Your task to perform on an android device: What's the weather today? Image 0: 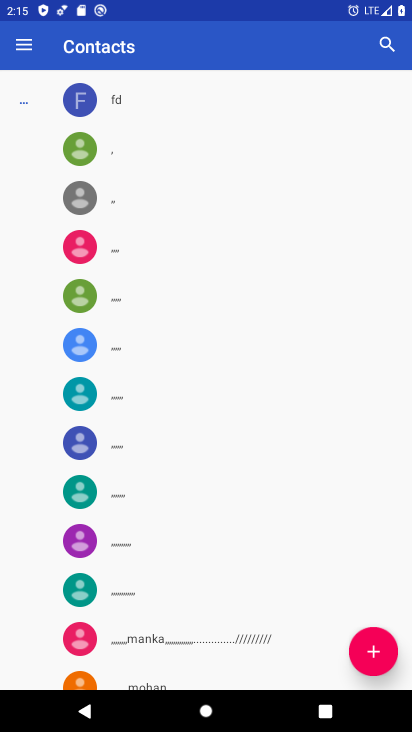
Step 0: press home button
Your task to perform on an android device: What's the weather today? Image 1: 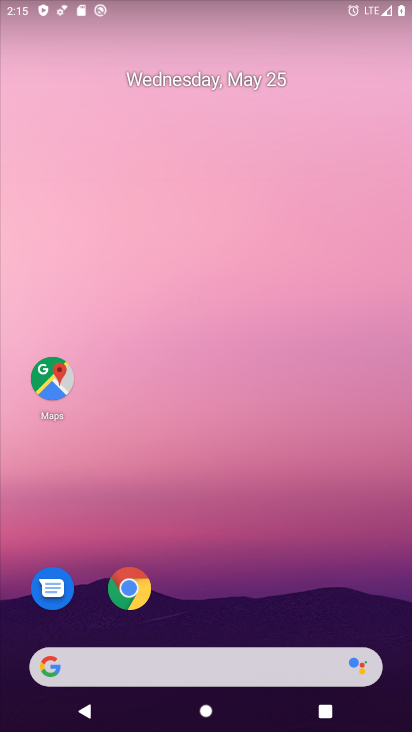
Step 1: drag from (262, 474) to (262, 29)
Your task to perform on an android device: What's the weather today? Image 2: 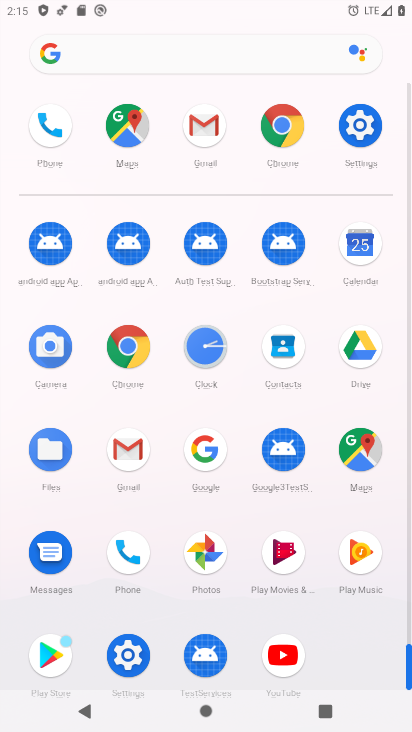
Step 2: click (283, 125)
Your task to perform on an android device: What's the weather today? Image 3: 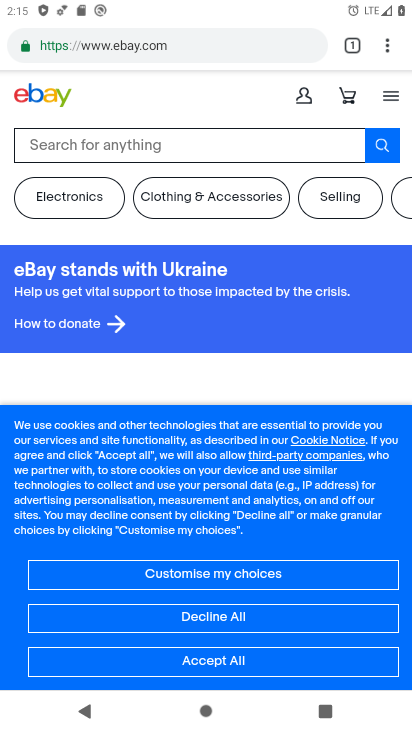
Step 3: click (153, 43)
Your task to perform on an android device: What's the weather today? Image 4: 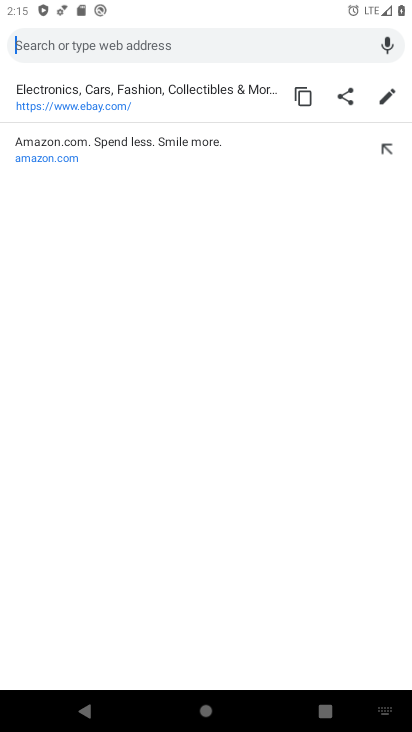
Step 4: type "What's the weather today?"
Your task to perform on an android device: What's the weather today? Image 5: 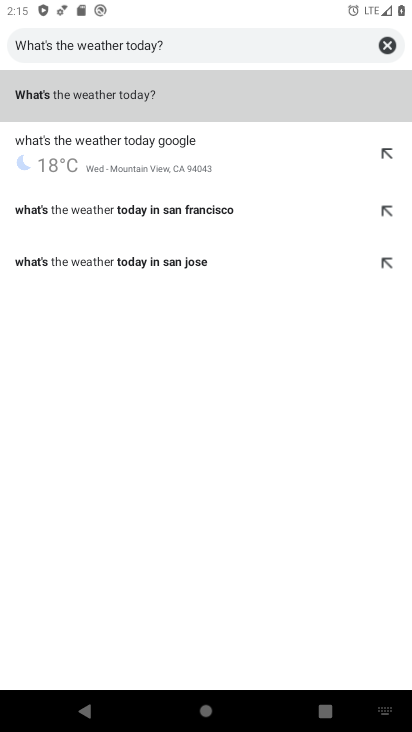
Step 5: click (122, 140)
Your task to perform on an android device: What's the weather today? Image 6: 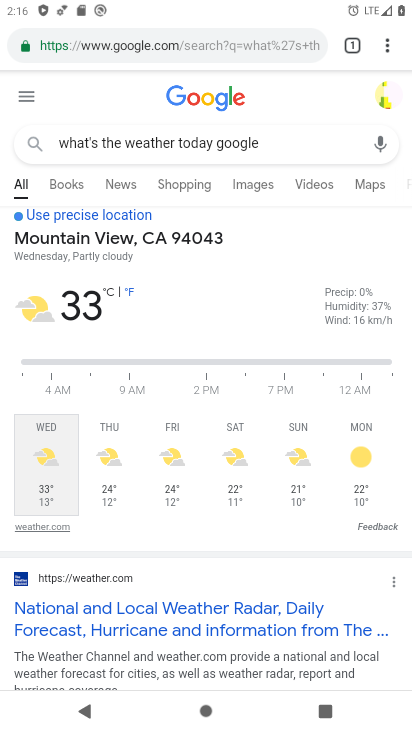
Step 6: task complete